Your task to perform on an android device: Go to Reddit.com Image 0: 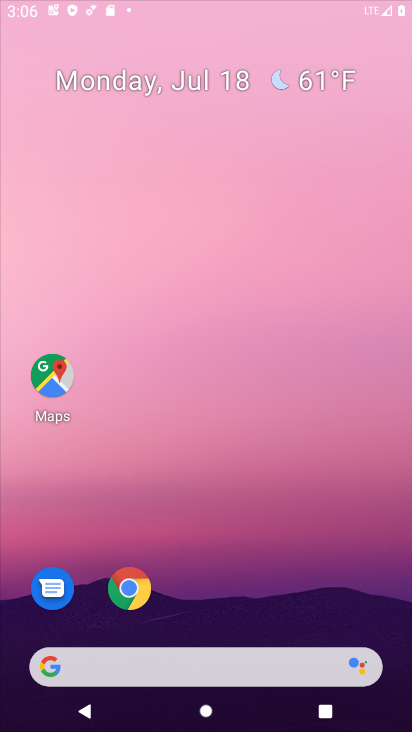
Step 0: task complete